Your task to perform on an android device: Open Chrome and go to settings Image 0: 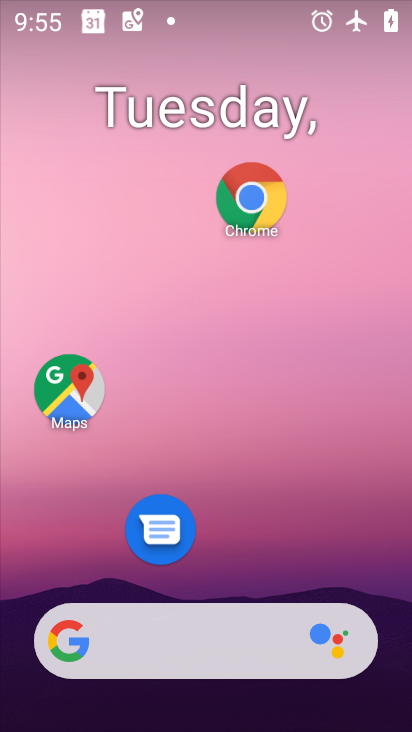
Step 0: click (227, 204)
Your task to perform on an android device: Open Chrome and go to settings Image 1: 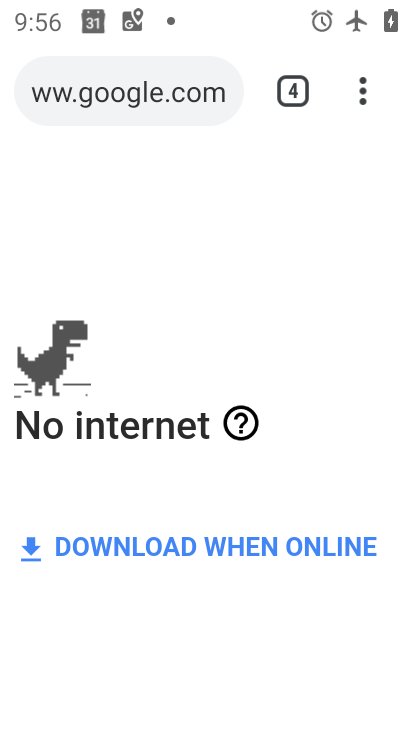
Step 1: click (363, 110)
Your task to perform on an android device: Open Chrome and go to settings Image 2: 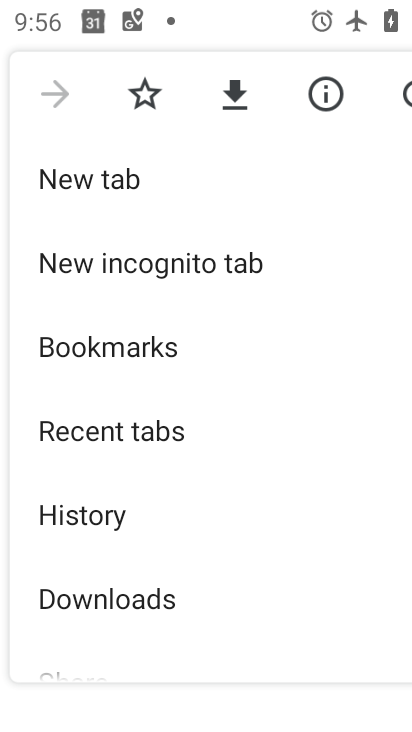
Step 2: drag from (244, 551) to (282, 190)
Your task to perform on an android device: Open Chrome and go to settings Image 3: 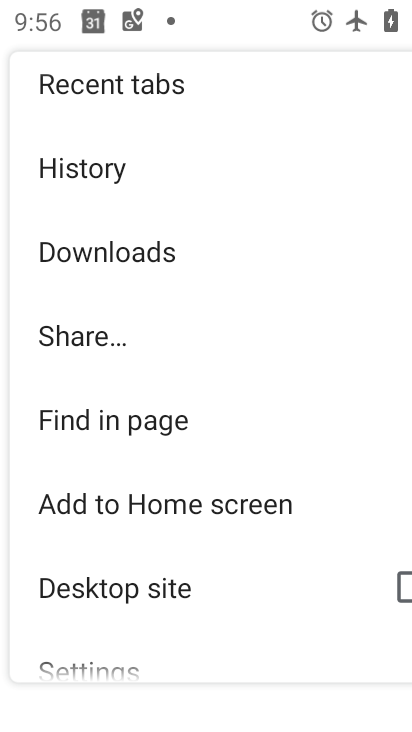
Step 3: drag from (223, 573) to (261, 327)
Your task to perform on an android device: Open Chrome and go to settings Image 4: 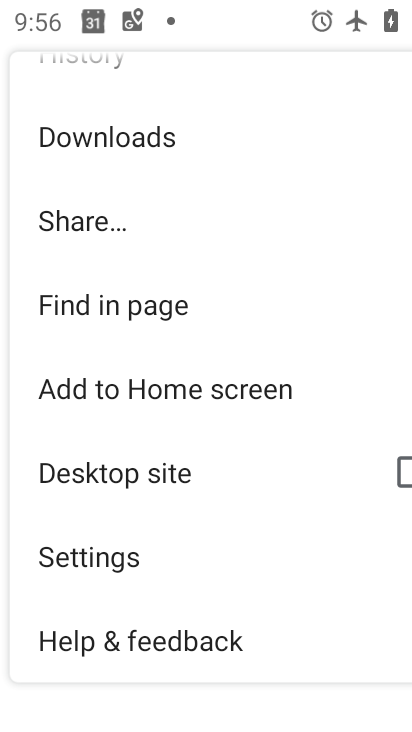
Step 4: click (170, 536)
Your task to perform on an android device: Open Chrome and go to settings Image 5: 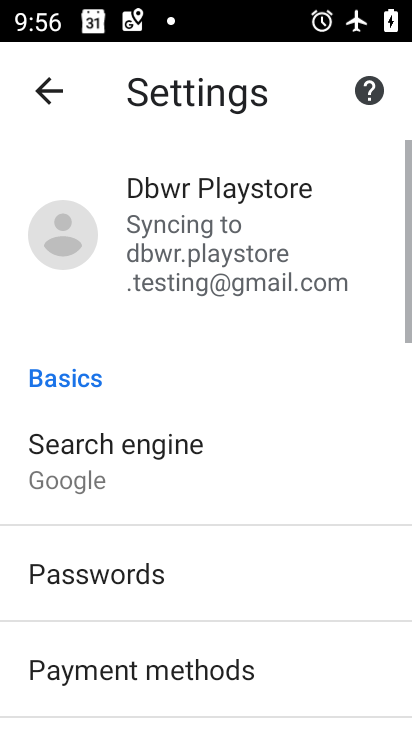
Step 5: task complete